Your task to perform on an android device: turn off data saver in the chrome app Image 0: 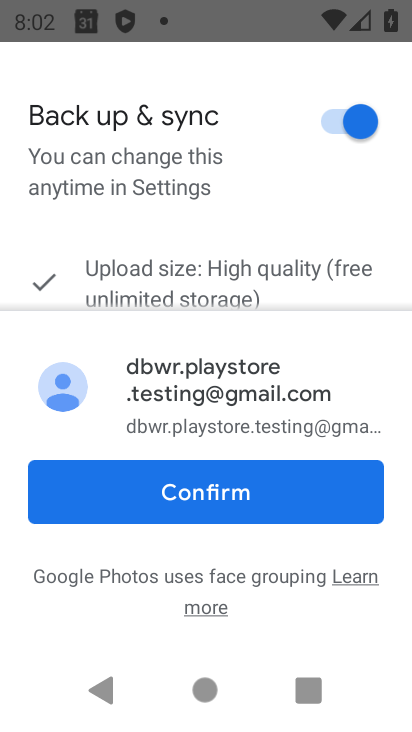
Step 0: press home button
Your task to perform on an android device: turn off data saver in the chrome app Image 1: 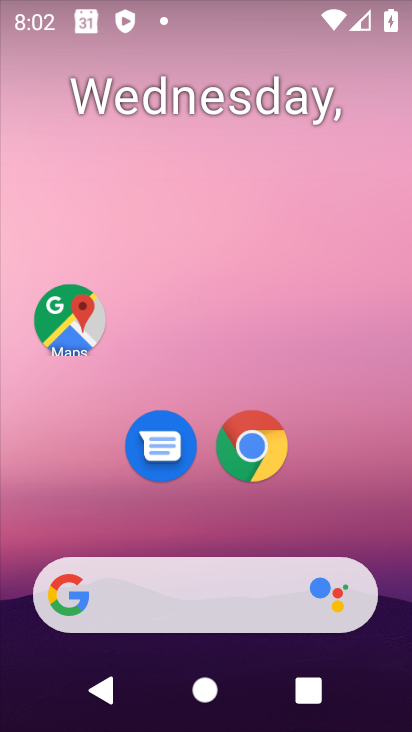
Step 1: click (251, 438)
Your task to perform on an android device: turn off data saver in the chrome app Image 2: 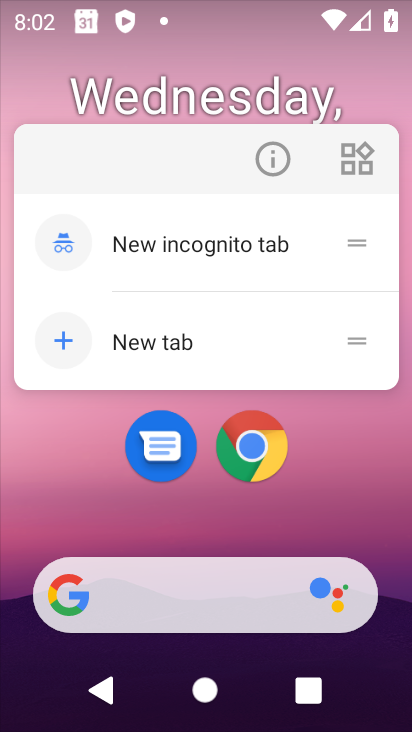
Step 2: click (256, 432)
Your task to perform on an android device: turn off data saver in the chrome app Image 3: 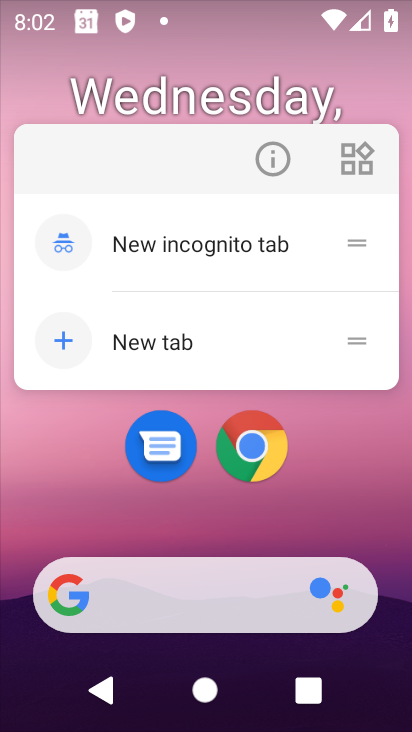
Step 3: click (256, 432)
Your task to perform on an android device: turn off data saver in the chrome app Image 4: 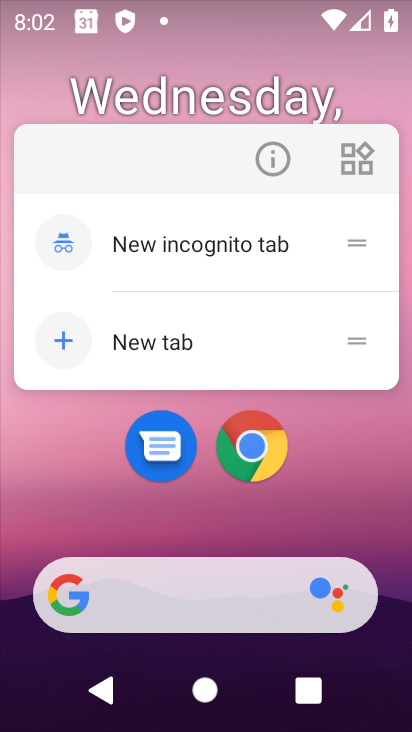
Step 4: drag from (337, 513) to (338, 162)
Your task to perform on an android device: turn off data saver in the chrome app Image 5: 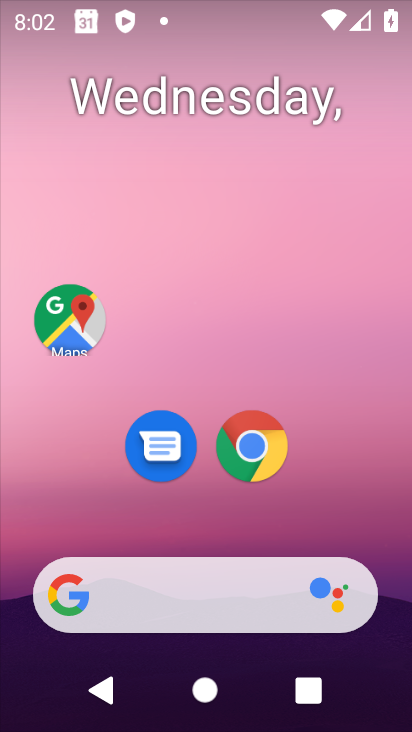
Step 5: drag from (345, 583) to (348, 20)
Your task to perform on an android device: turn off data saver in the chrome app Image 6: 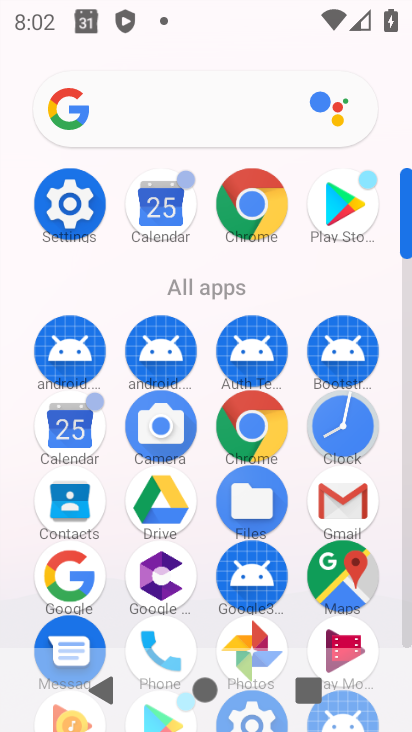
Step 6: click (261, 213)
Your task to perform on an android device: turn off data saver in the chrome app Image 7: 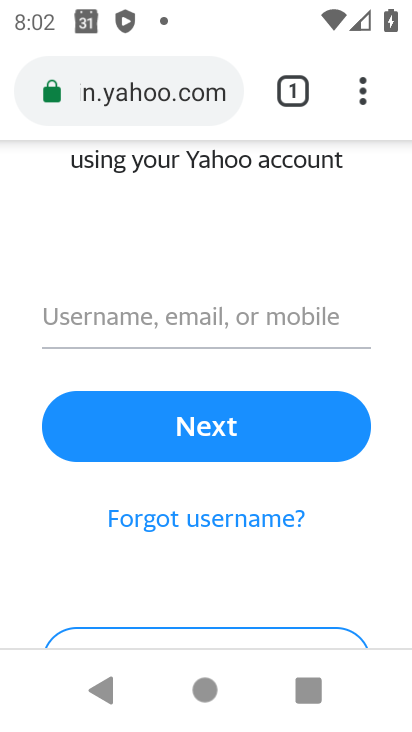
Step 7: drag from (376, 107) to (170, 459)
Your task to perform on an android device: turn off data saver in the chrome app Image 8: 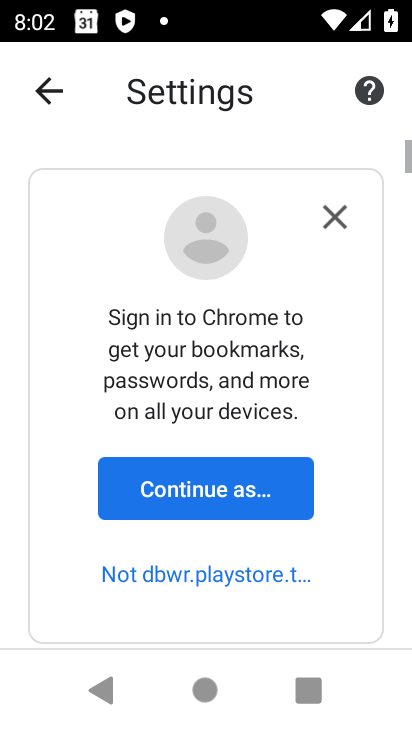
Step 8: drag from (221, 557) to (272, 184)
Your task to perform on an android device: turn off data saver in the chrome app Image 9: 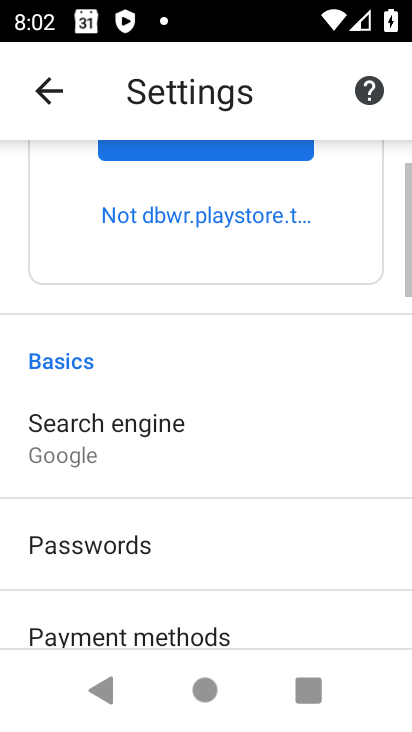
Step 9: drag from (246, 550) to (262, 162)
Your task to perform on an android device: turn off data saver in the chrome app Image 10: 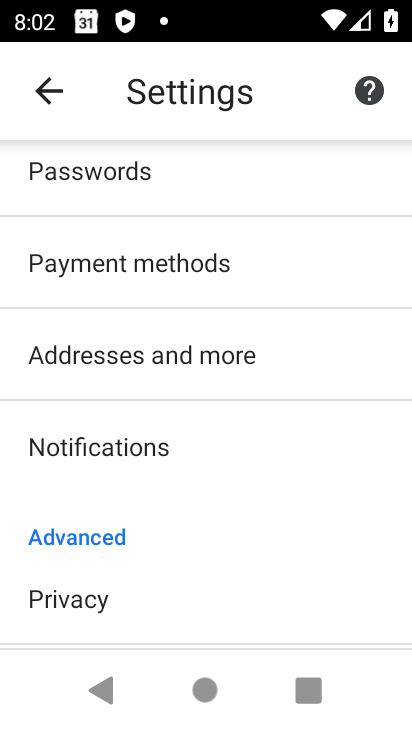
Step 10: drag from (258, 550) to (275, 173)
Your task to perform on an android device: turn off data saver in the chrome app Image 11: 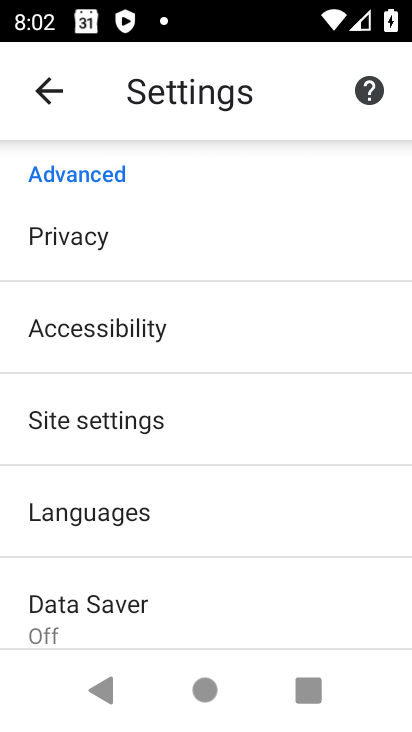
Step 11: click (98, 611)
Your task to perform on an android device: turn off data saver in the chrome app Image 12: 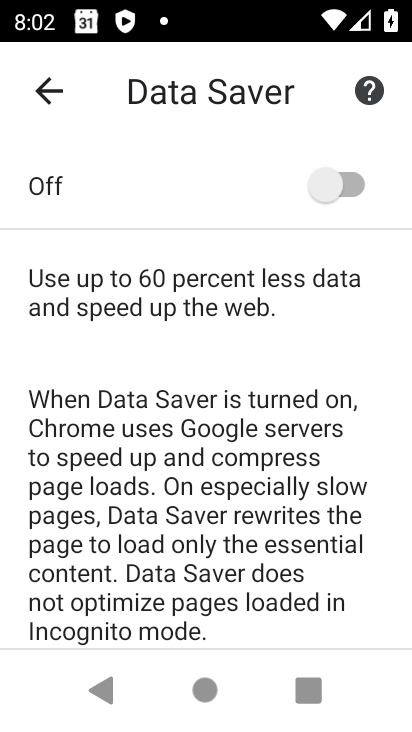
Step 12: task complete